Your task to perform on an android device: toggle show notifications on the lock screen Image 0: 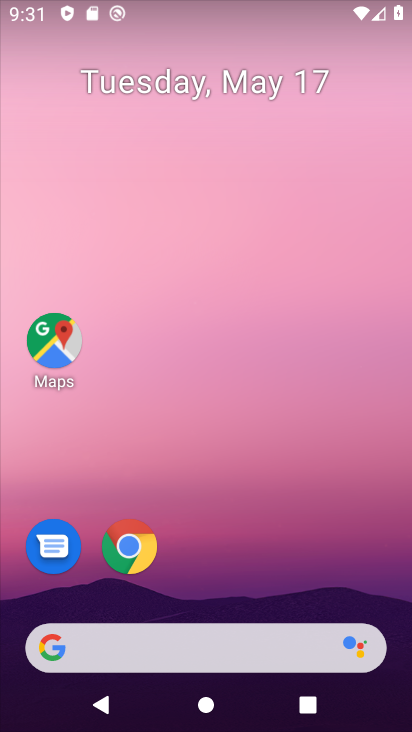
Step 0: drag from (227, 521) to (241, 303)
Your task to perform on an android device: toggle show notifications on the lock screen Image 1: 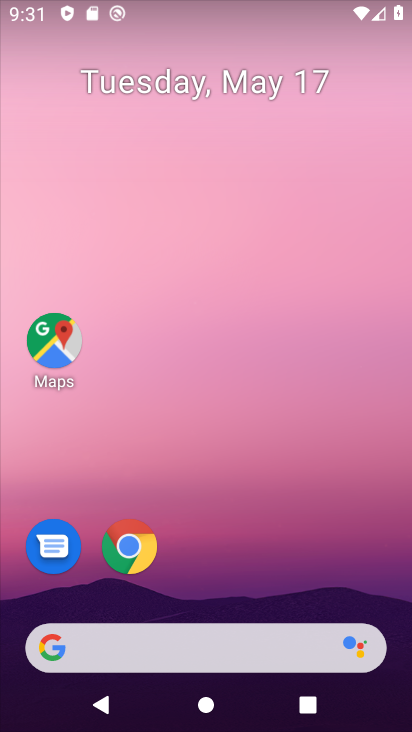
Step 1: drag from (215, 548) to (255, 281)
Your task to perform on an android device: toggle show notifications on the lock screen Image 2: 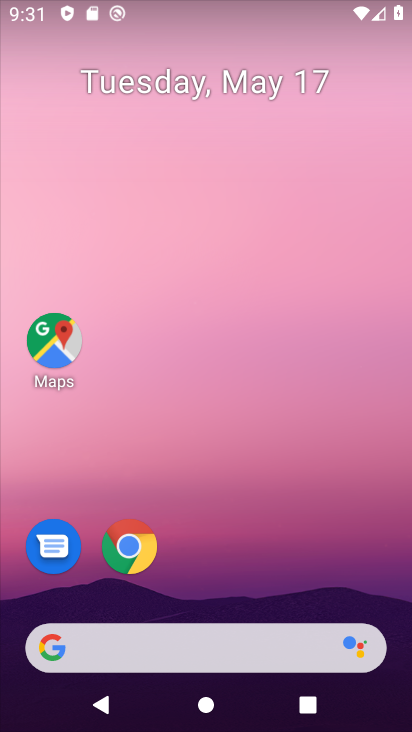
Step 2: drag from (178, 607) to (243, 294)
Your task to perform on an android device: toggle show notifications on the lock screen Image 3: 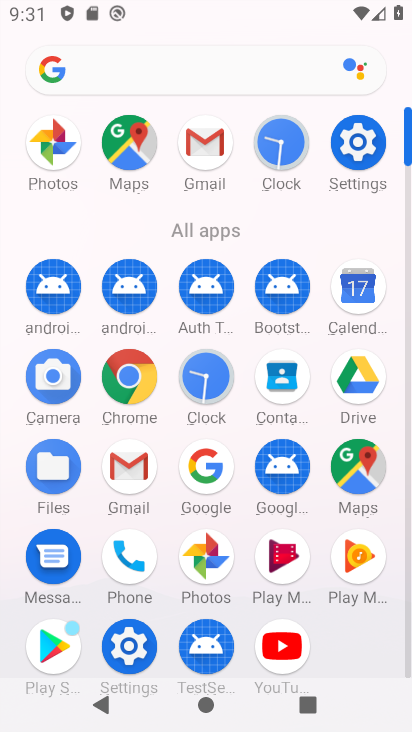
Step 3: click (360, 138)
Your task to perform on an android device: toggle show notifications on the lock screen Image 4: 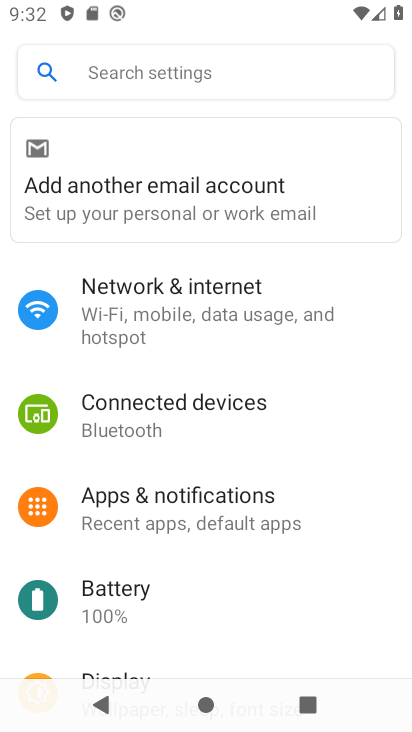
Step 4: drag from (173, 613) to (211, 443)
Your task to perform on an android device: toggle show notifications on the lock screen Image 5: 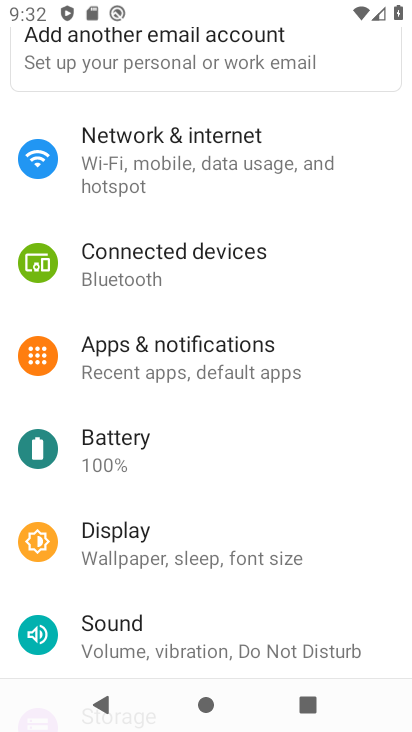
Step 5: click (183, 351)
Your task to perform on an android device: toggle show notifications on the lock screen Image 6: 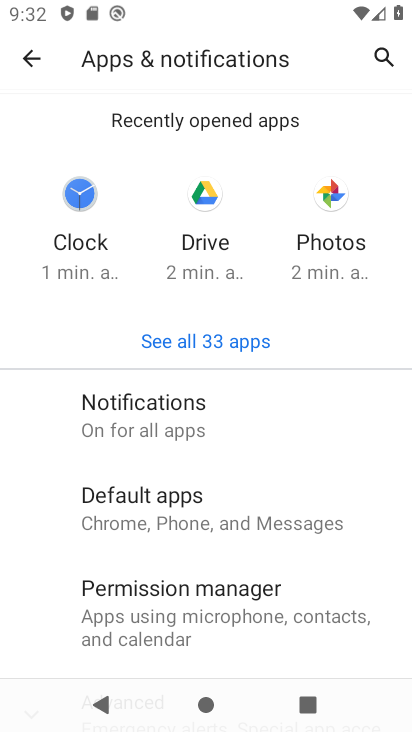
Step 6: click (172, 430)
Your task to perform on an android device: toggle show notifications on the lock screen Image 7: 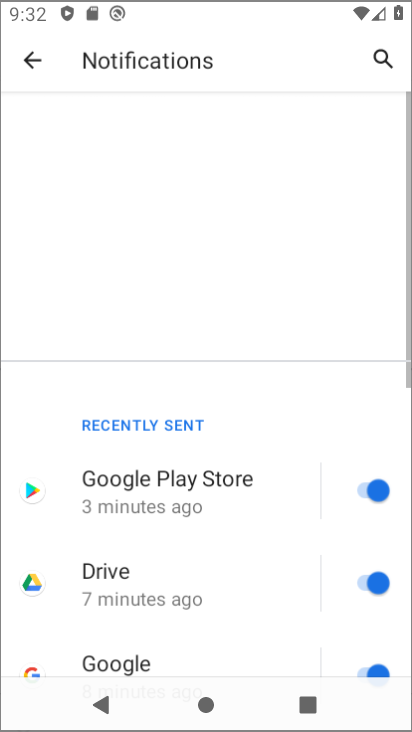
Step 7: drag from (237, 597) to (319, 81)
Your task to perform on an android device: toggle show notifications on the lock screen Image 8: 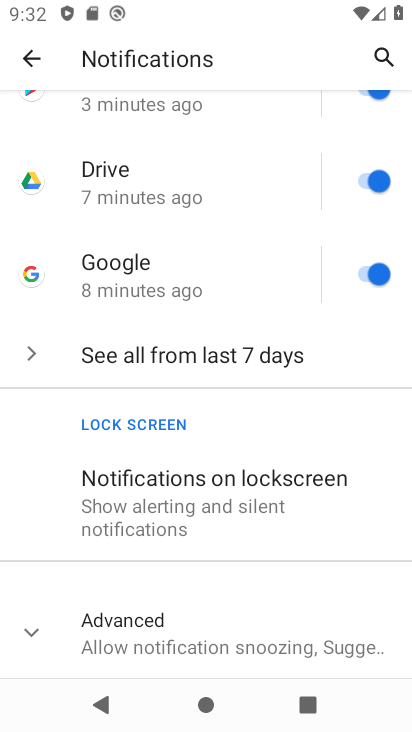
Step 8: click (207, 522)
Your task to perform on an android device: toggle show notifications on the lock screen Image 9: 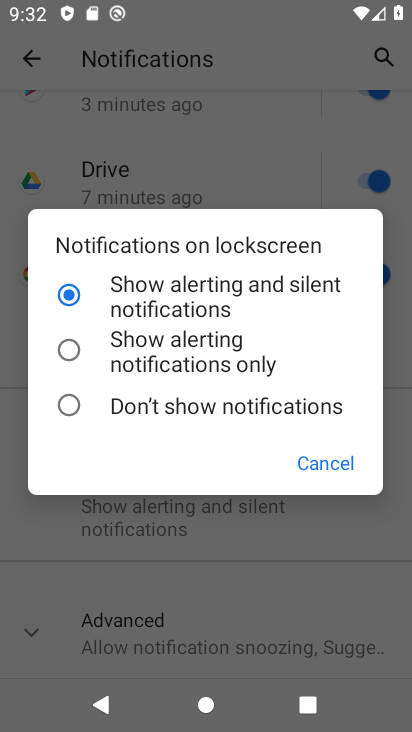
Step 9: click (150, 360)
Your task to perform on an android device: toggle show notifications on the lock screen Image 10: 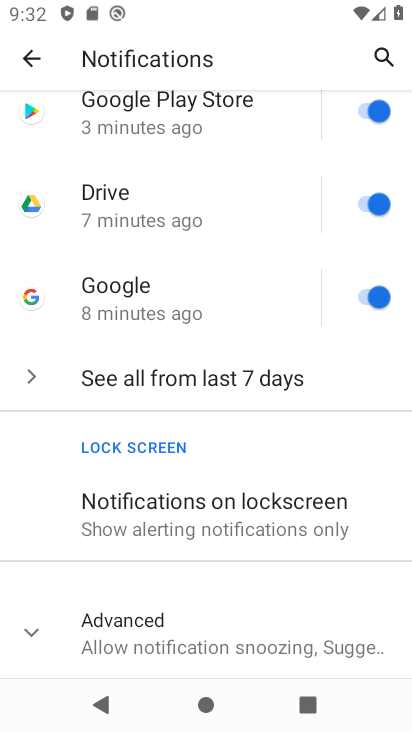
Step 10: task complete